Your task to perform on an android device: turn on the 12-hour format for clock Image 0: 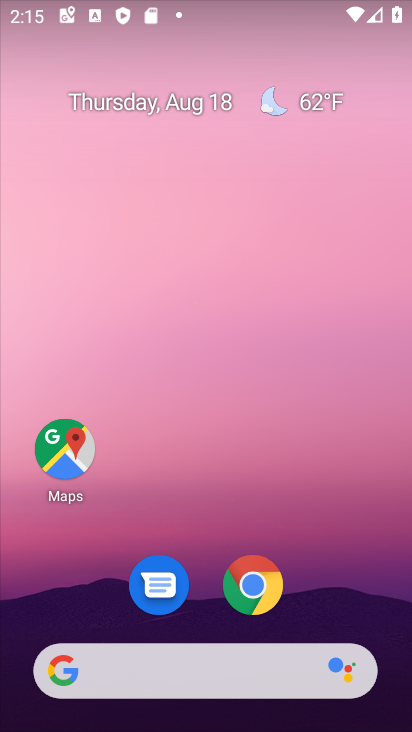
Step 0: drag from (245, 512) to (276, 0)
Your task to perform on an android device: turn on the 12-hour format for clock Image 1: 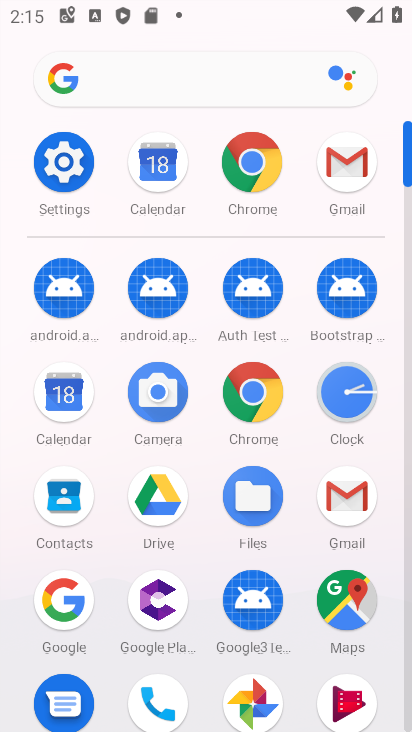
Step 1: click (347, 392)
Your task to perform on an android device: turn on the 12-hour format for clock Image 2: 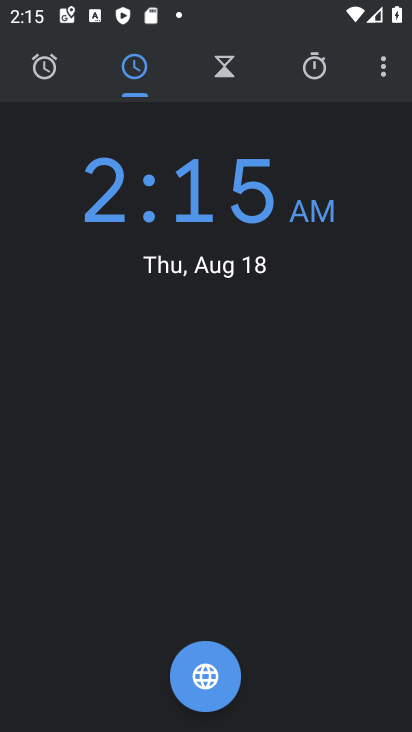
Step 2: click (379, 74)
Your task to perform on an android device: turn on the 12-hour format for clock Image 3: 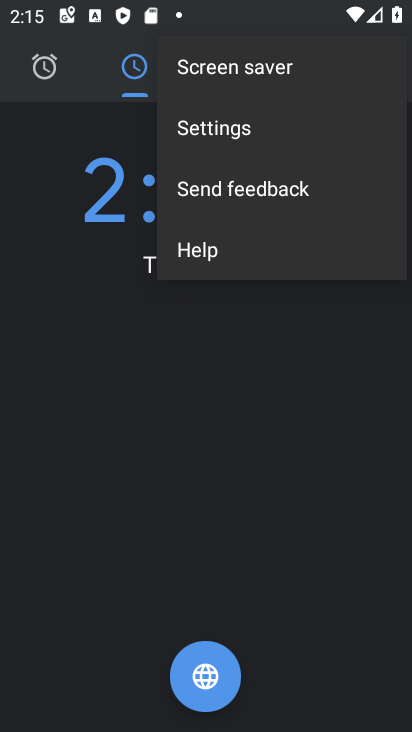
Step 3: click (342, 428)
Your task to perform on an android device: turn on the 12-hour format for clock Image 4: 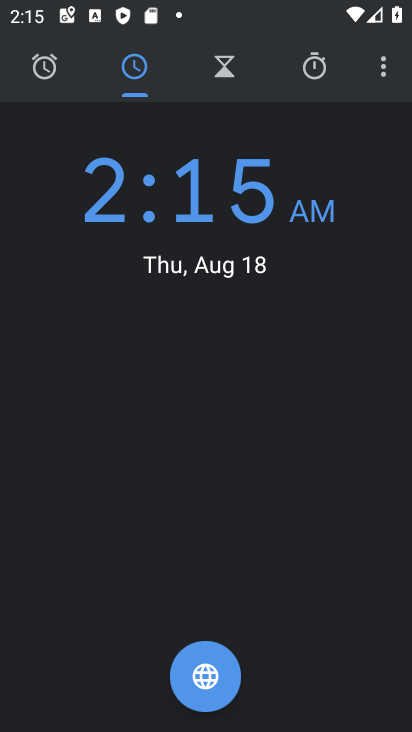
Step 4: task complete